Your task to perform on an android device: Open the web browser Image 0: 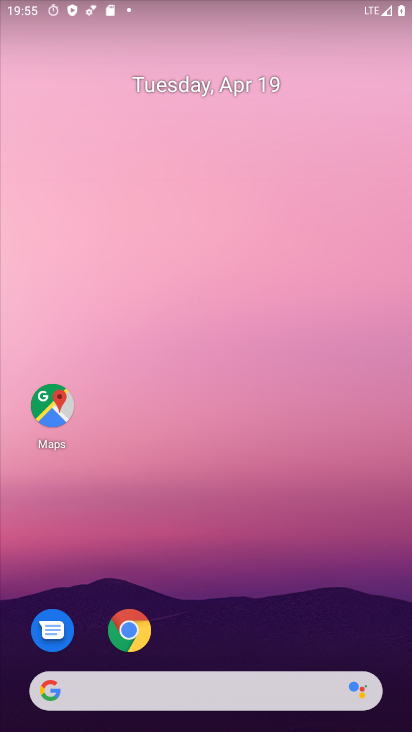
Step 0: click (168, 678)
Your task to perform on an android device: Open the web browser Image 1: 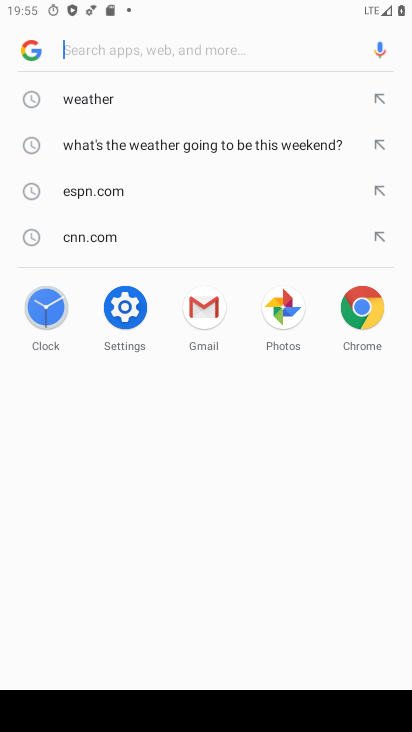
Step 1: task complete